Your task to perform on an android device: Open the web browser Image 0: 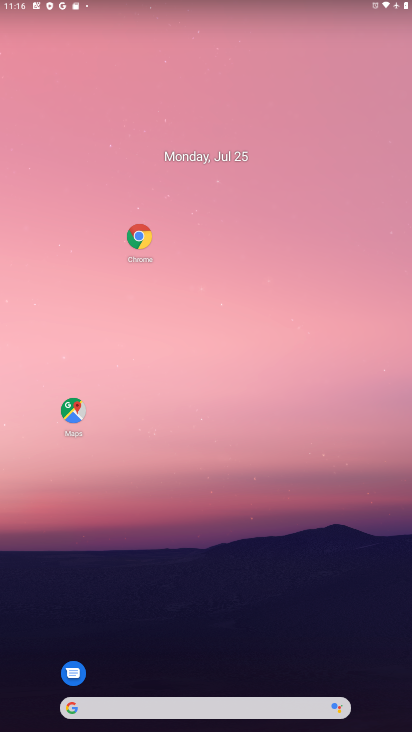
Step 0: click (147, 237)
Your task to perform on an android device: Open the web browser Image 1: 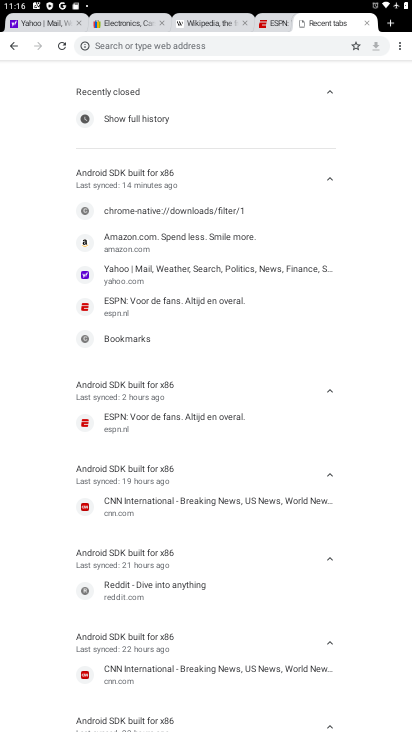
Step 1: click (395, 49)
Your task to perform on an android device: Open the web browser Image 2: 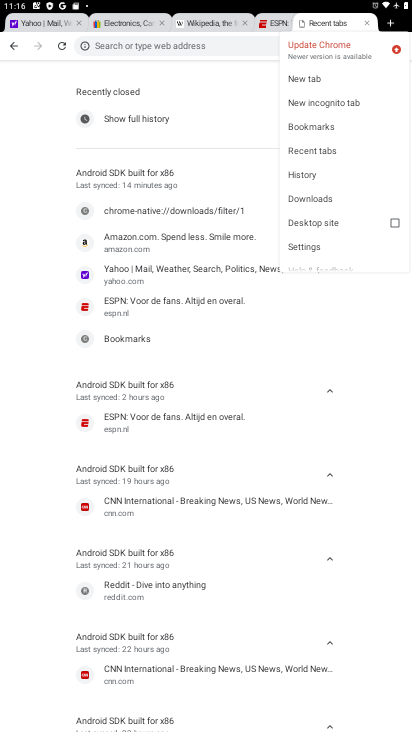
Step 2: task complete